Your task to perform on an android device: Do I have any events tomorrow? Image 0: 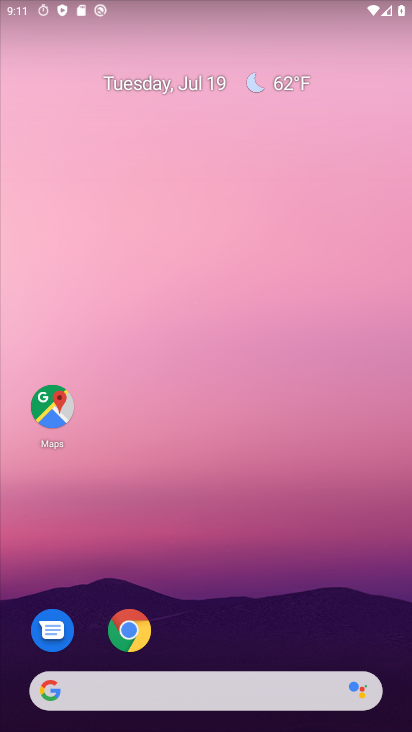
Step 0: drag from (181, 654) to (181, 245)
Your task to perform on an android device: Do I have any events tomorrow? Image 1: 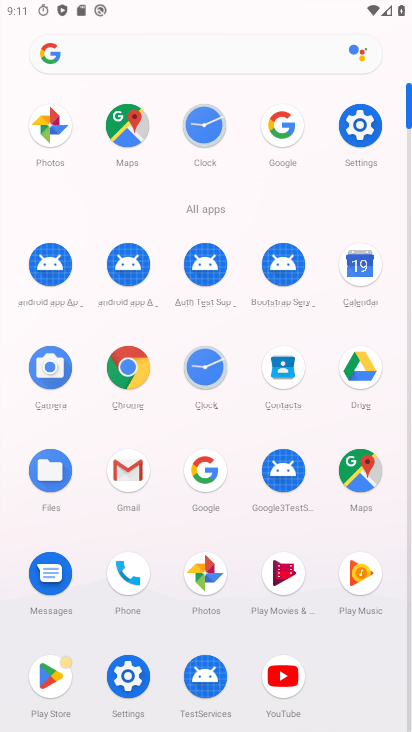
Step 1: click (350, 273)
Your task to perform on an android device: Do I have any events tomorrow? Image 2: 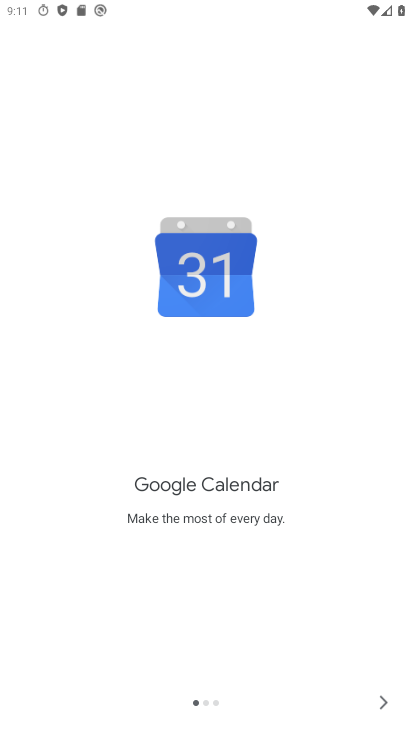
Step 2: click (380, 705)
Your task to perform on an android device: Do I have any events tomorrow? Image 3: 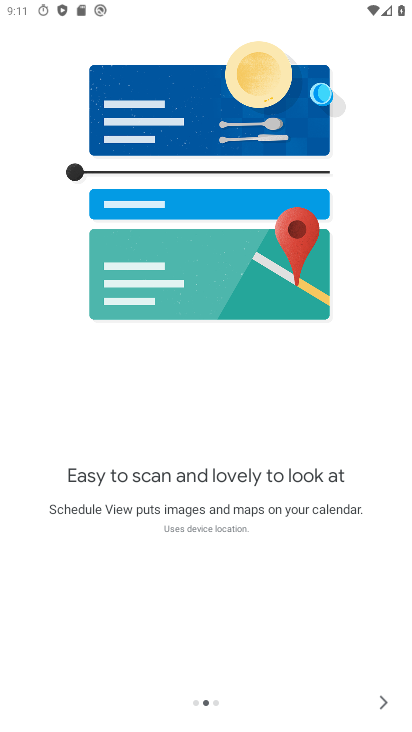
Step 3: click (380, 705)
Your task to perform on an android device: Do I have any events tomorrow? Image 4: 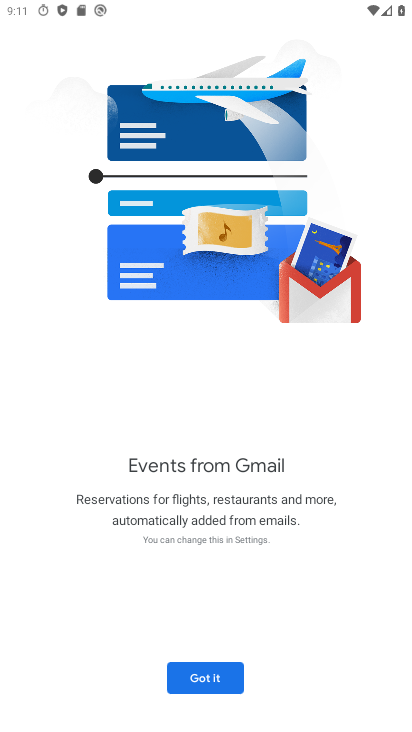
Step 4: click (208, 675)
Your task to perform on an android device: Do I have any events tomorrow? Image 5: 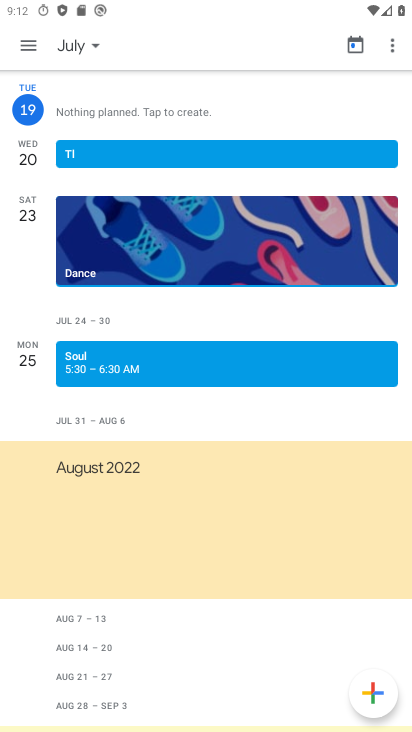
Step 5: click (70, 47)
Your task to perform on an android device: Do I have any events tomorrow? Image 6: 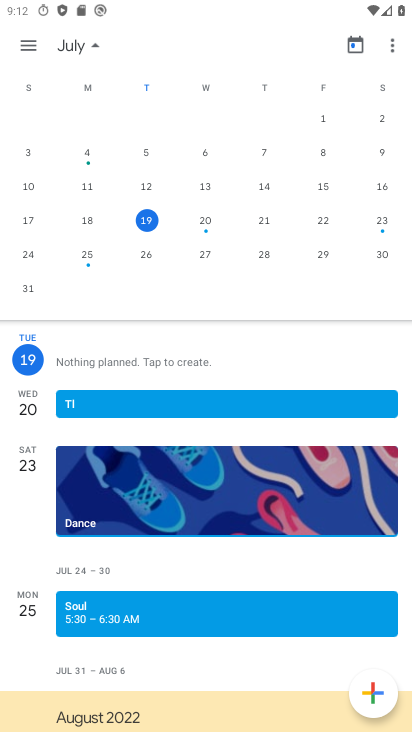
Step 6: click (199, 223)
Your task to perform on an android device: Do I have any events tomorrow? Image 7: 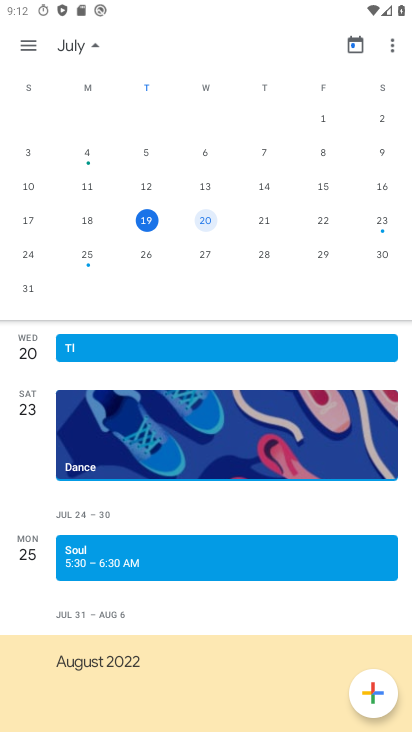
Step 7: task complete